Your task to perform on an android device: Open Google Maps Image 0: 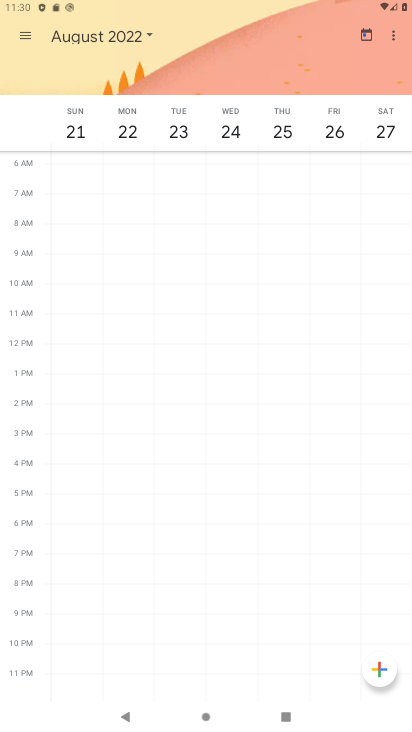
Step 0: press home button
Your task to perform on an android device: Open Google Maps Image 1: 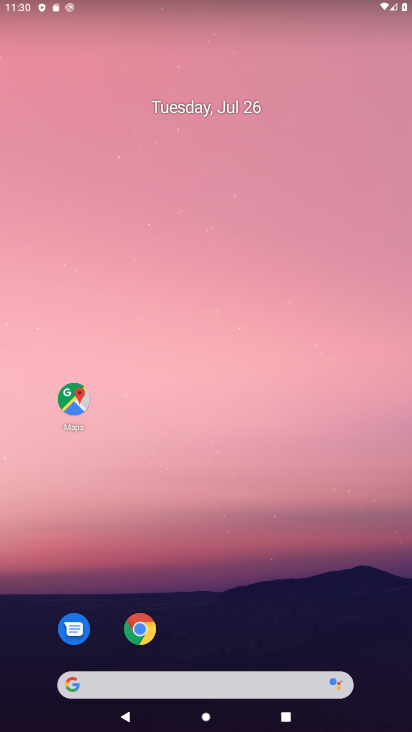
Step 1: drag from (233, 726) to (235, 322)
Your task to perform on an android device: Open Google Maps Image 2: 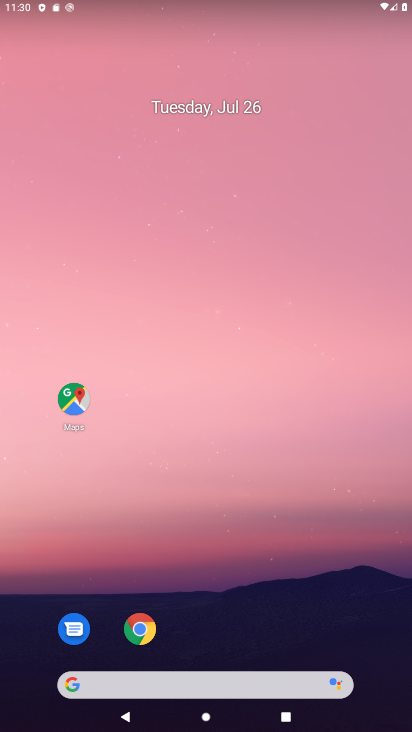
Step 2: drag from (225, 729) to (213, 102)
Your task to perform on an android device: Open Google Maps Image 3: 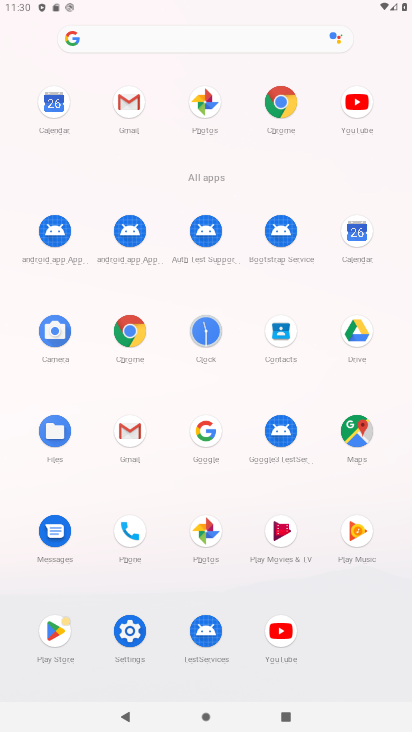
Step 3: click (354, 434)
Your task to perform on an android device: Open Google Maps Image 4: 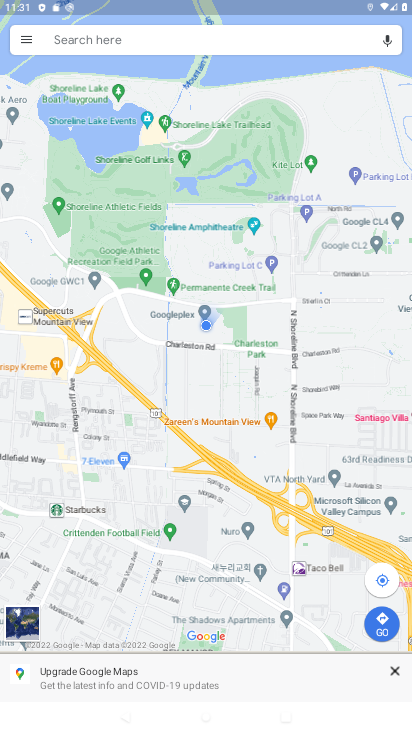
Step 4: task complete